Your task to perform on an android device: Do I have any events today? Image 0: 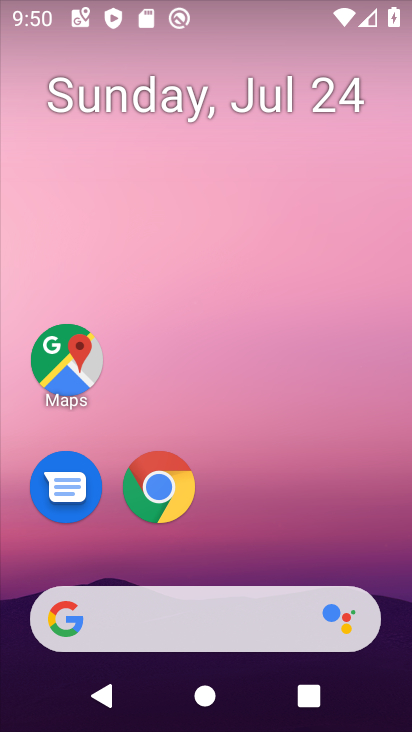
Step 0: drag from (256, 508) to (370, 2)
Your task to perform on an android device: Do I have any events today? Image 1: 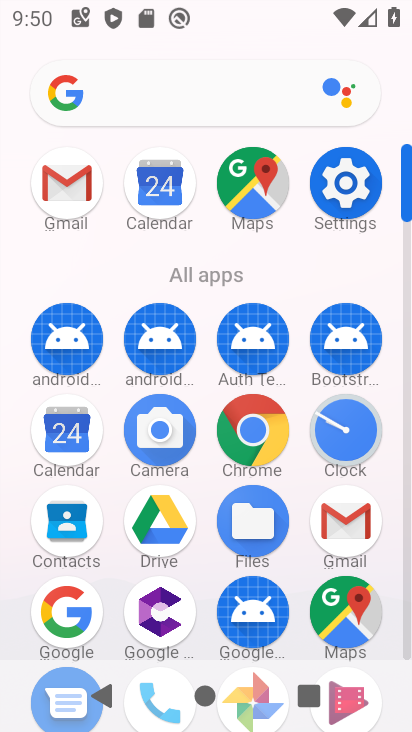
Step 1: click (67, 444)
Your task to perform on an android device: Do I have any events today? Image 2: 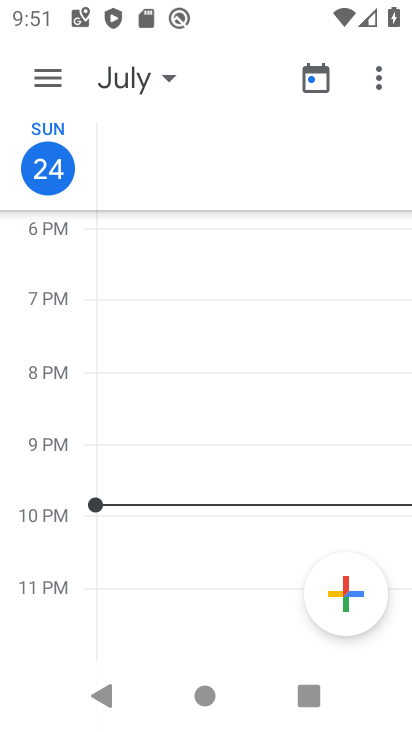
Step 2: click (40, 76)
Your task to perform on an android device: Do I have any events today? Image 3: 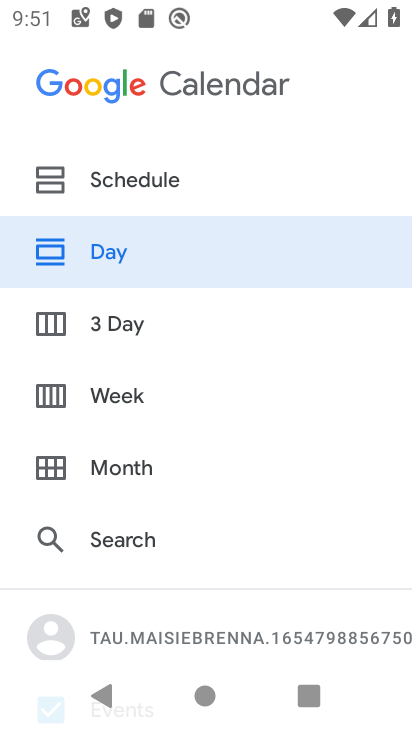
Step 3: click (120, 180)
Your task to perform on an android device: Do I have any events today? Image 4: 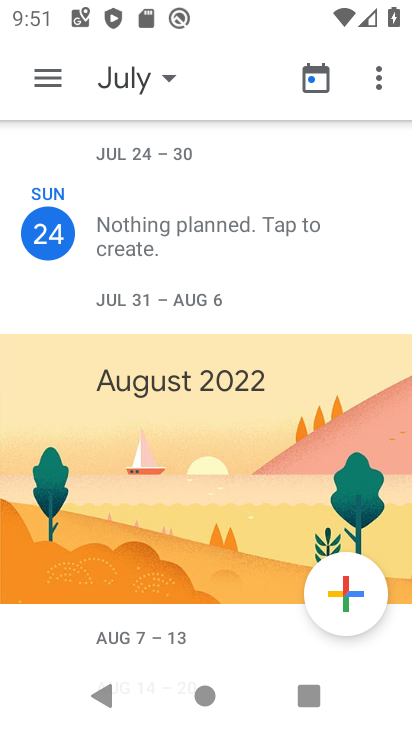
Step 4: task complete